Your task to perform on an android device: Do I have any events tomorrow? Image 0: 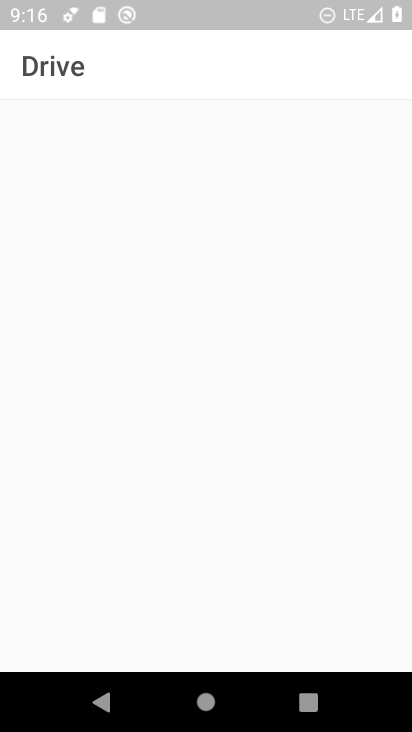
Step 0: press back button
Your task to perform on an android device: Do I have any events tomorrow? Image 1: 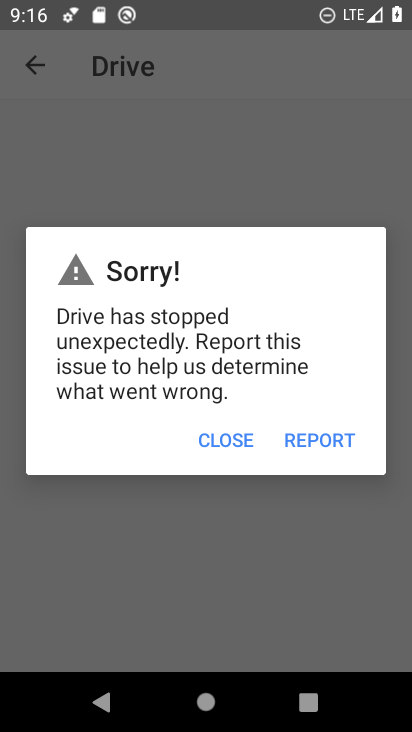
Step 1: press home button
Your task to perform on an android device: Do I have any events tomorrow? Image 2: 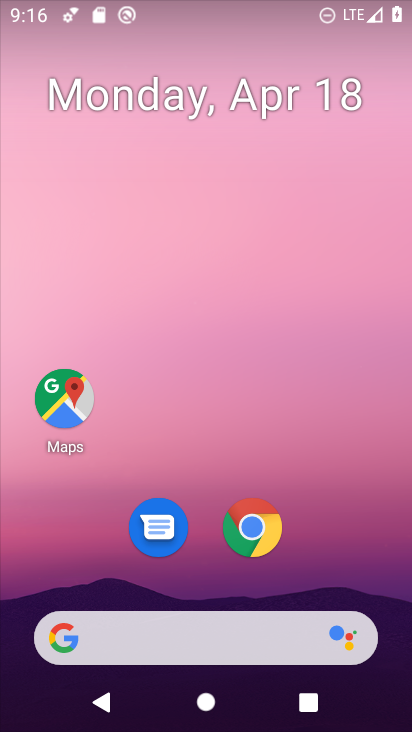
Step 2: drag from (343, 451) to (260, 0)
Your task to perform on an android device: Do I have any events tomorrow? Image 3: 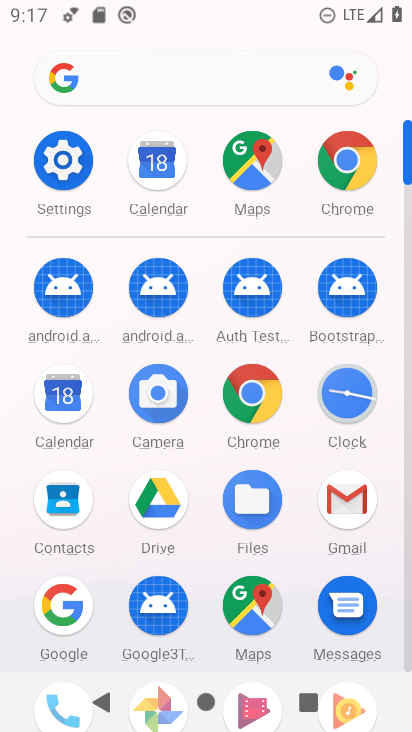
Step 3: drag from (8, 464) to (9, 237)
Your task to perform on an android device: Do I have any events tomorrow? Image 4: 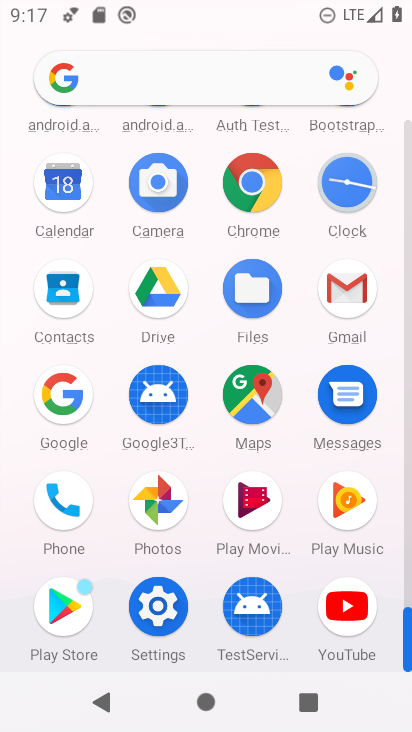
Step 4: click (59, 179)
Your task to perform on an android device: Do I have any events tomorrow? Image 5: 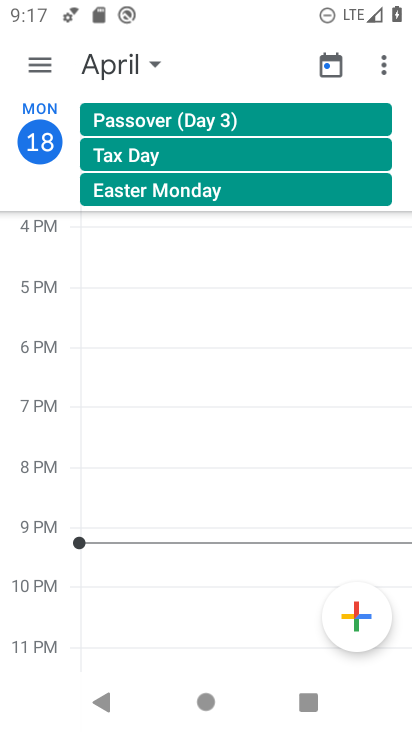
Step 5: click (119, 62)
Your task to perform on an android device: Do I have any events tomorrow? Image 6: 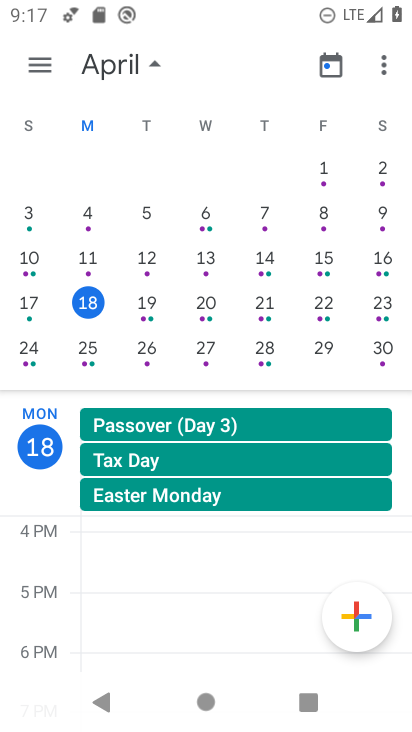
Step 6: click (146, 294)
Your task to perform on an android device: Do I have any events tomorrow? Image 7: 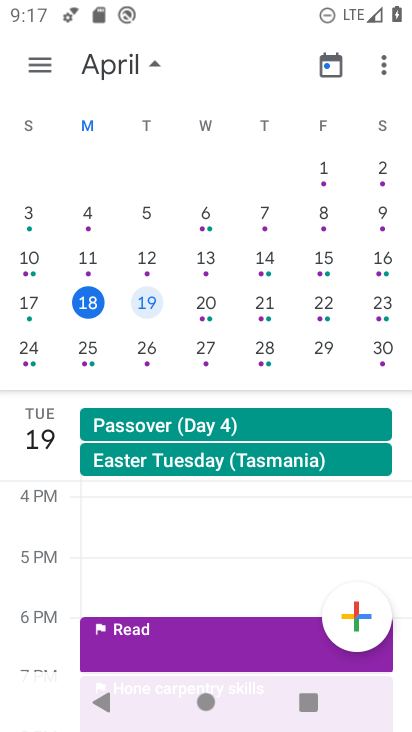
Step 7: click (45, 63)
Your task to perform on an android device: Do I have any events tomorrow? Image 8: 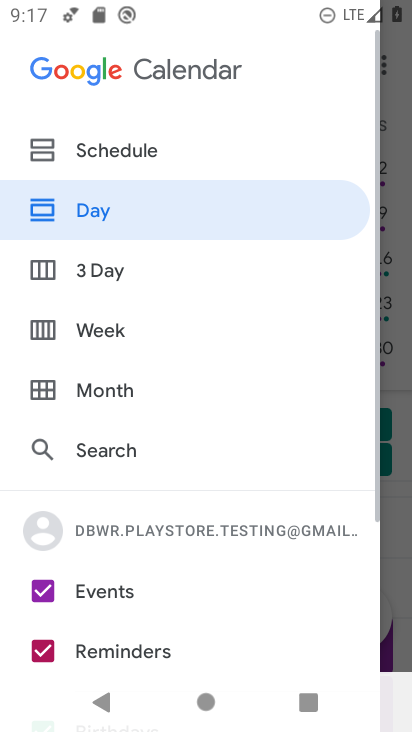
Step 8: click (106, 213)
Your task to perform on an android device: Do I have any events tomorrow? Image 9: 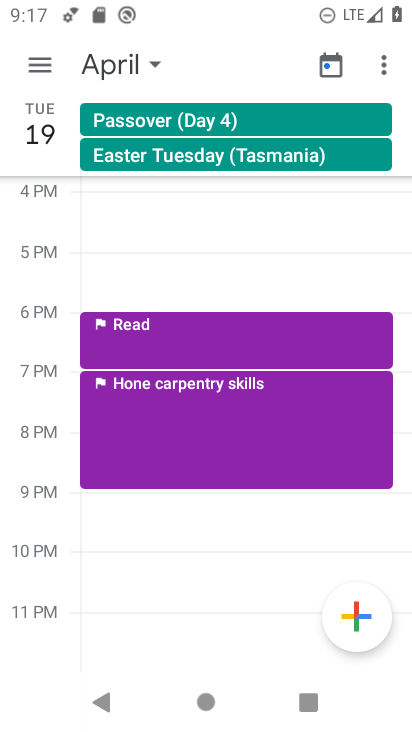
Step 9: task complete